Your task to perform on an android device: Toggle the flashlight Image 0: 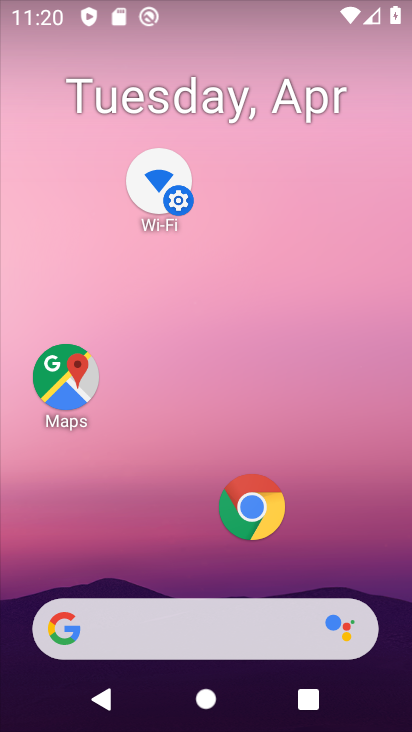
Step 0: drag from (64, 553) to (257, 236)
Your task to perform on an android device: Toggle the flashlight Image 1: 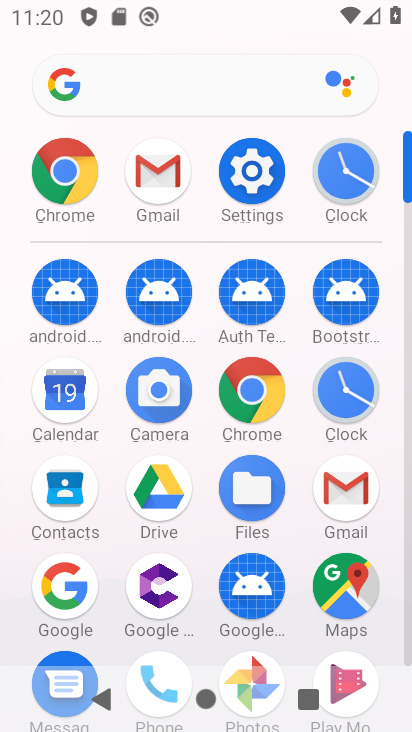
Step 1: click (265, 160)
Your task to perform on an android device: Toggle the flashlight Image 2: 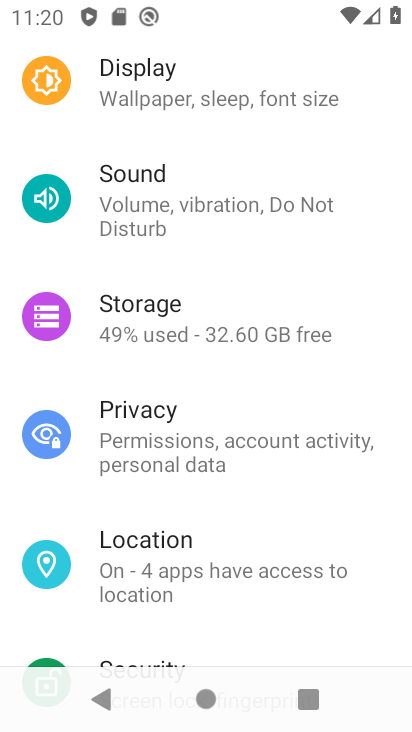
Step 2: click (153, 442)
Your task to perform on an android device: Toggle the flashlight Image 3: 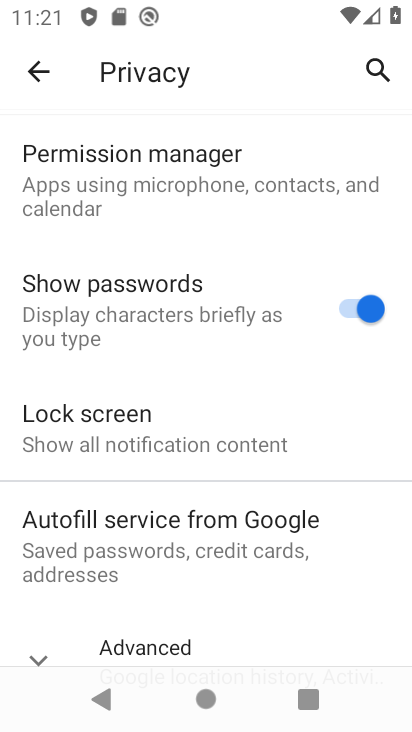
Step 3: task complete